Your task to perform on an android device: make emails show in primary in the gmail app Image 0: 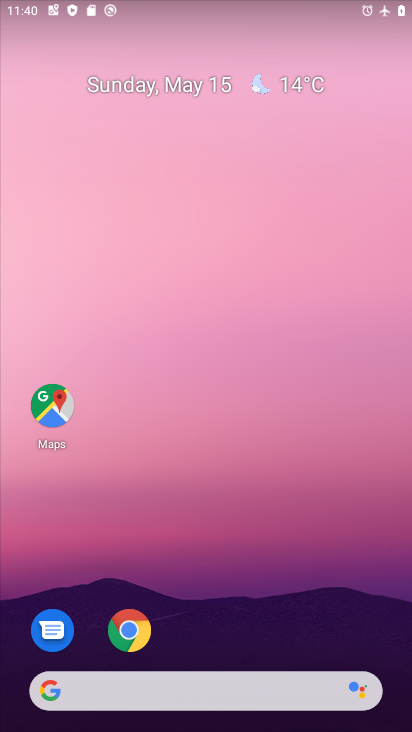
Step 0: drag from (176, 723) to (180, 243)
Your task to perform on an android device: make emails show in primary in the gmail app Image 1: 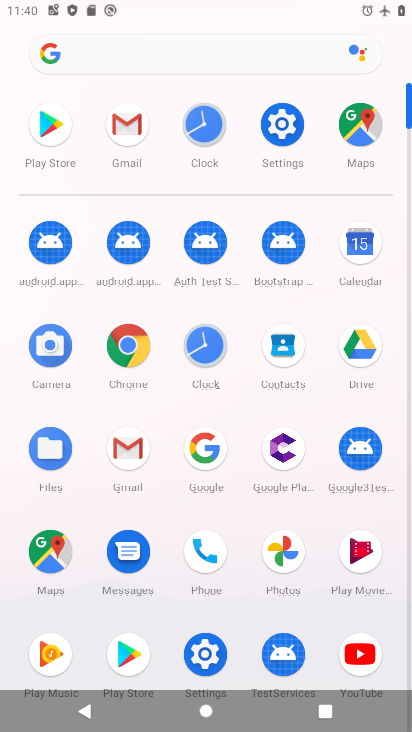
Step 1: click (134, 442)
Your task to perform on an android device: make emails show in primary in the gmail app Image 2: 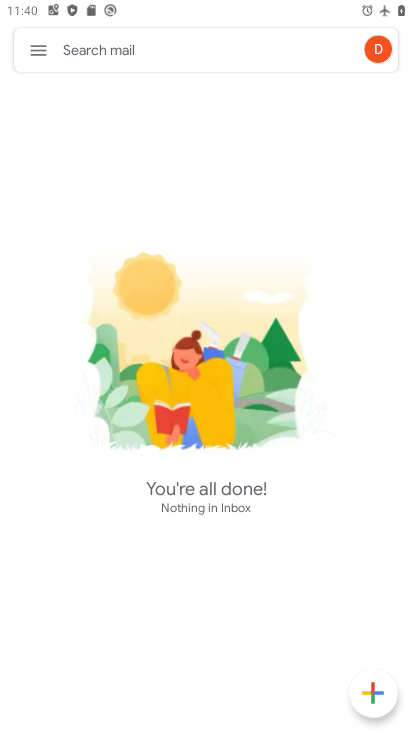
Step 2: click (35, 51)
Your task to perform on an android device: make emails show in primary in the gmail app Image 3: 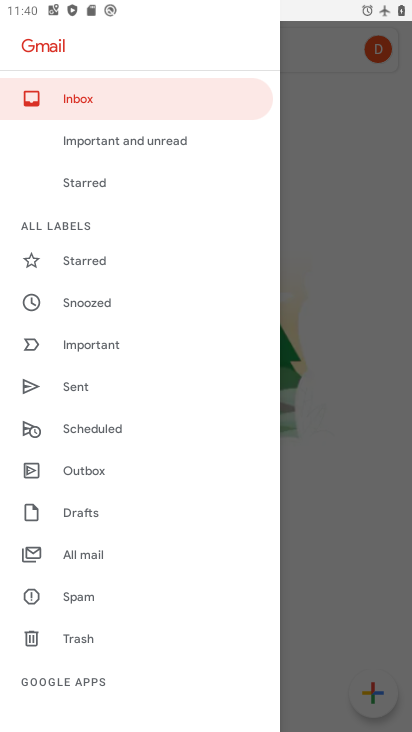
Step 3: drag from (67, 674) to (80, 294)
Your task to perform on an android device: make emails show in primary in the gmail app Image 4: 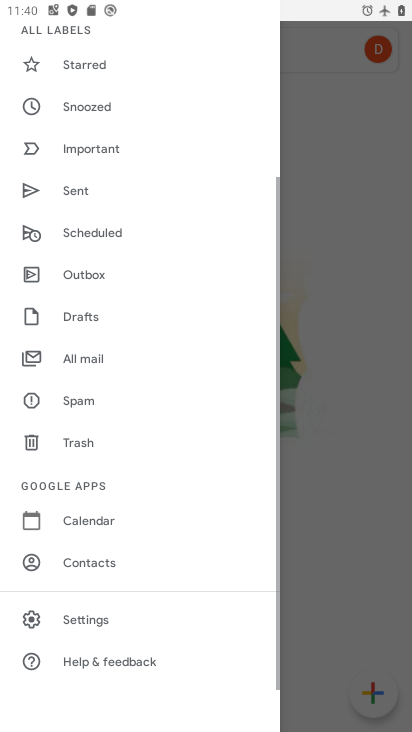
Step 4: click (76, 618)
Your task to perform on an android device: make emails show in primary in the gmail app Image 5: 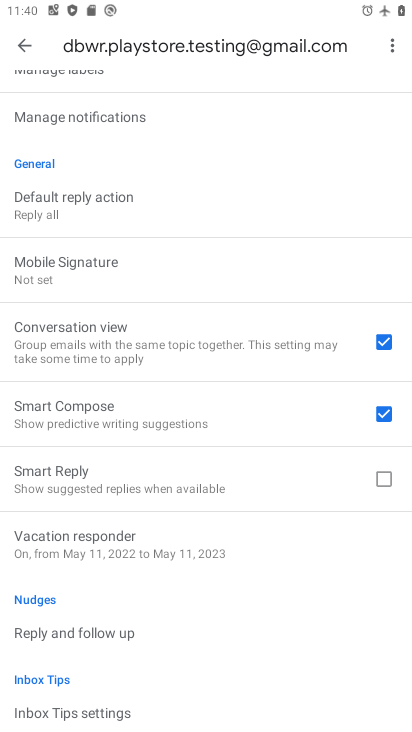
Step 5: drag from (189, 127) to (150, 668)
Your task to perform on an android device: make emails show in primary in the gmail app Image 6: 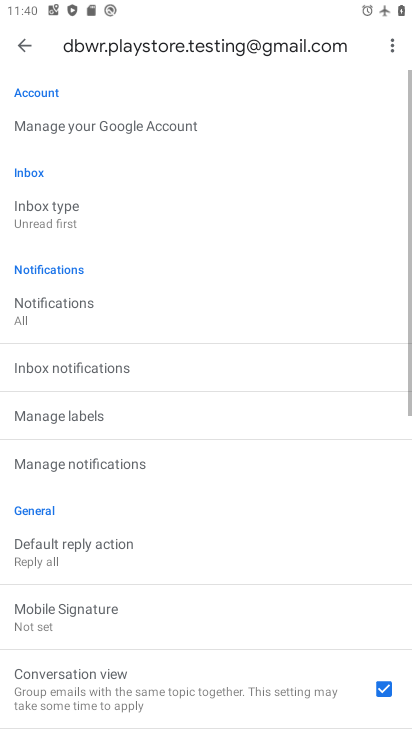
Step 6: drag from (160, 224) to (158, 641)
Your task to perform on an android device: make emails show in primary in the gmail app Image 7: 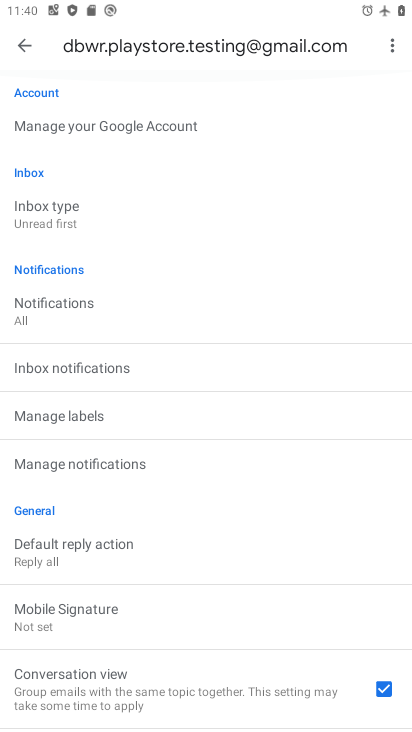
Step 7: drag from (140, 680) to (155, 447)
Your task to perform on an android device: make emails show in primary in the gmail app Image 8: 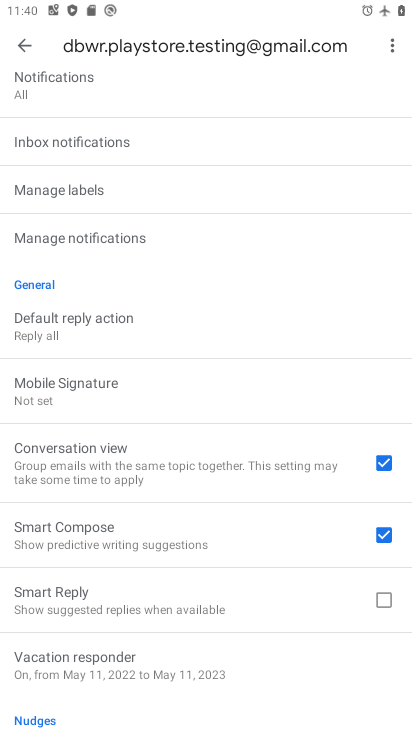
Step 8: drag from (131, 651) to (141, 314)
Your task to perform on an android device: make emails show in primary in the gmail app Image 9: 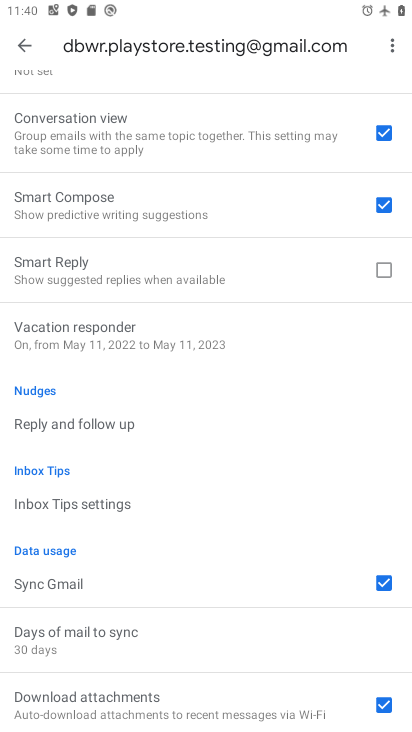
Step 9: drag from (145, 588) to (151, 697)
Your task to perform on an android device: make emails show in primary in the gmail app Image 10: 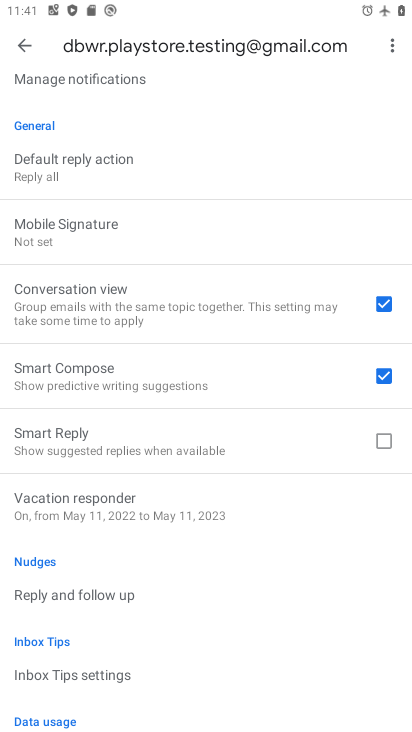
Step 10: drag from (203, 116) to (202, 527)
Your task to perform on an android device: make emails show in primary in the gmail app Image 11: 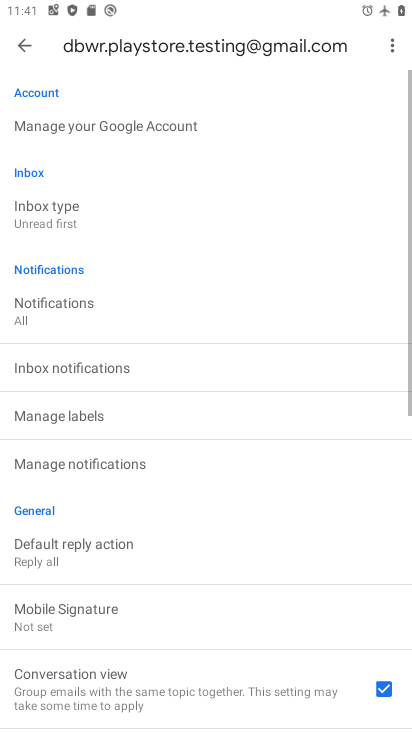
Step 11: click (56, 210)
Your task to perform on an android device: make emails show in primary in the gmail app Image 12: 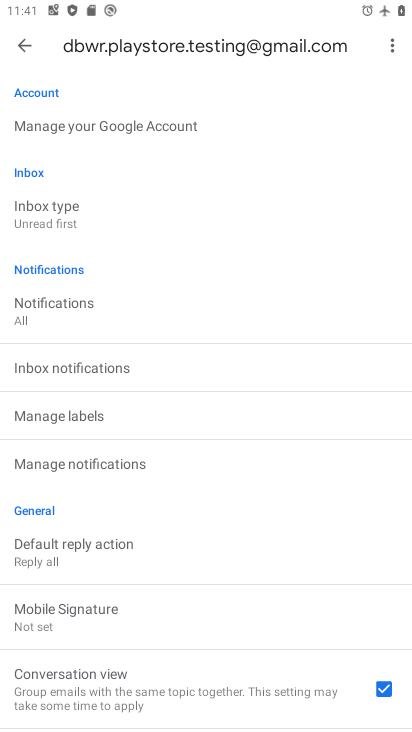
Step 12: click (49, 212)
Your task to perform on an android device: make emails show in primary in the gmail app Image 13: 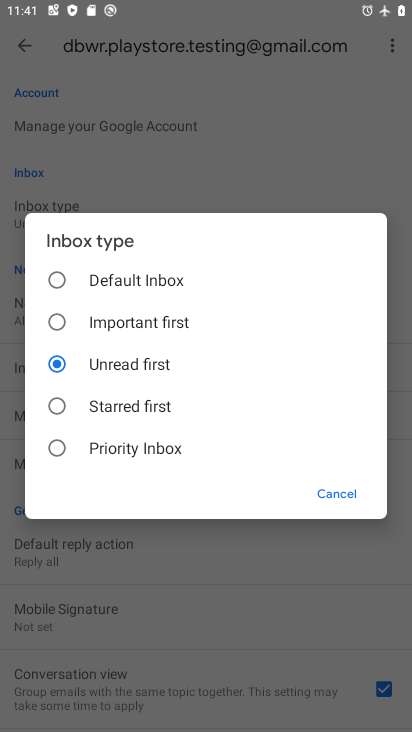
Step 13: click (53, 272)
Your task to perform on an android device: make emails show in primary in the gmail app Image 14: 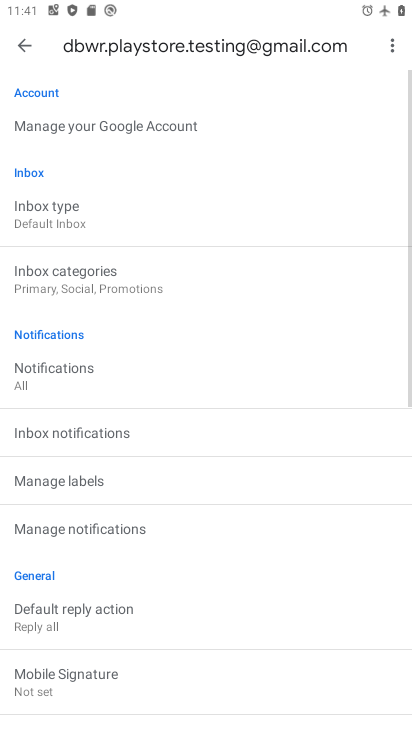
Step 14: click (61, 285)
Your task to perform on an android device: make emails show in primary in the gmail app Image 15: 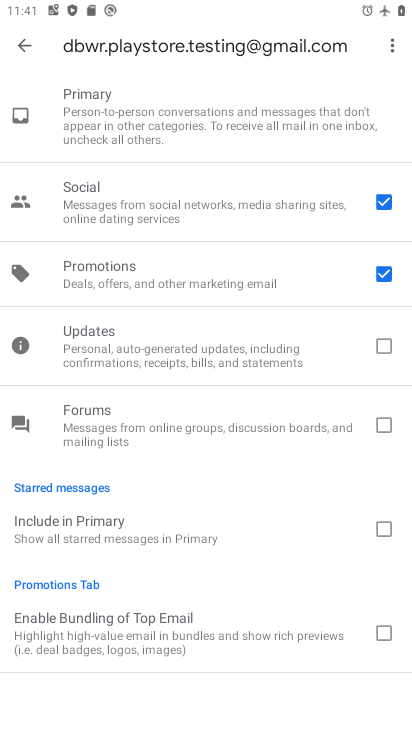
Step 15: click (380, 277)
Your task to perform on an android device: make emails show in primary in the gmail app Image 16: 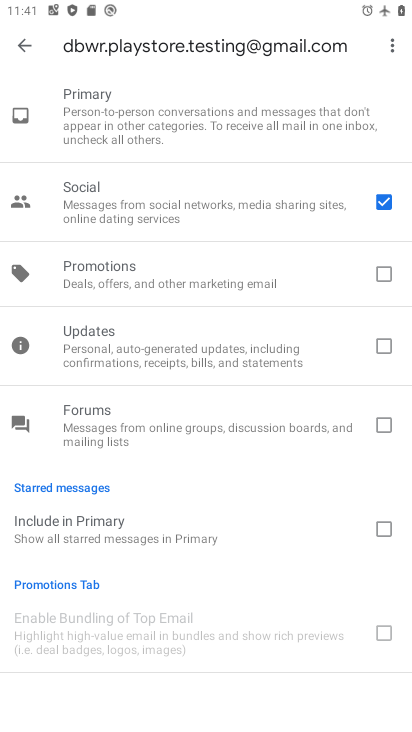
Step 16: click (382, 199)
Your task to perform on an android device: make emails show in primary in the gmail app Image 17: 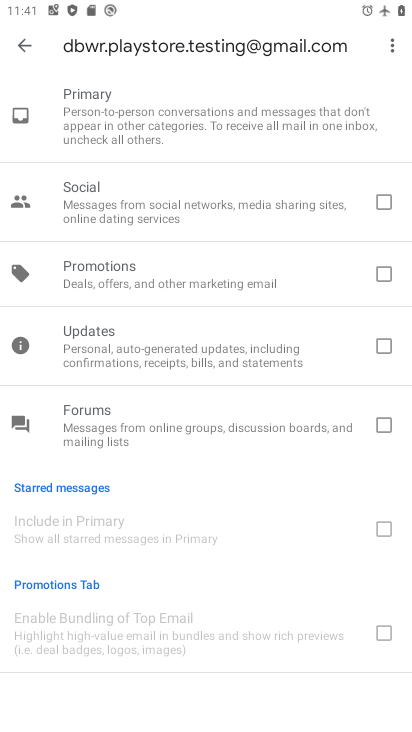
Step 17: click (24, 42)
Your task to perform on an android device: make emails show in primary in the gmail app Image 18: 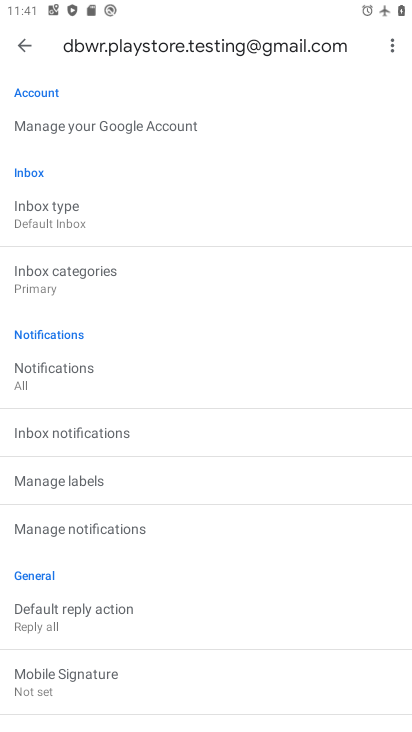
Step 18: task complete